Your task to perform on an android device: toggle wifi Image 0: 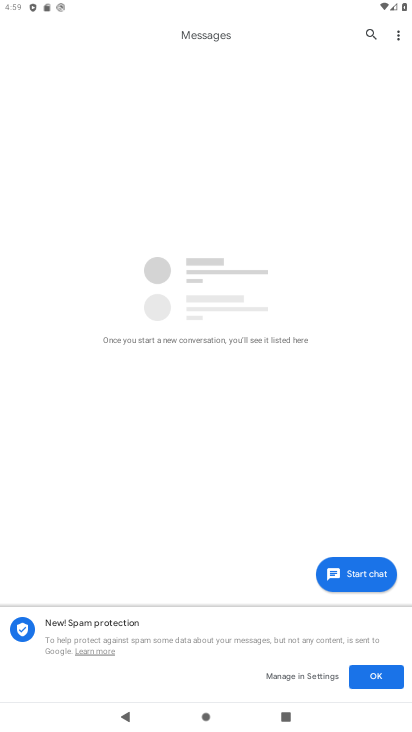
Step 0: press home button
Your task to perform on an android device: toggle wifi Image 1: 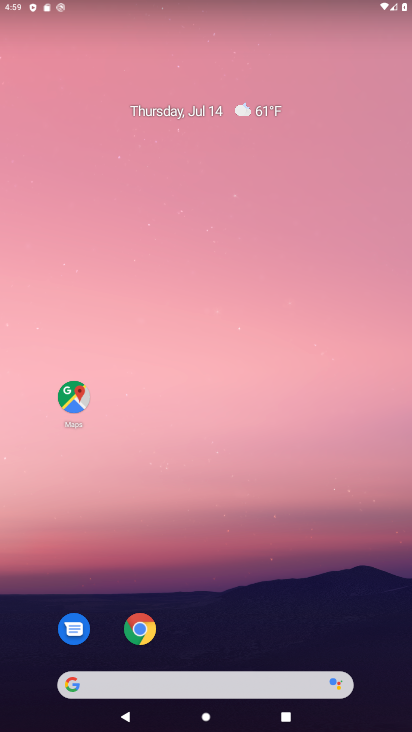
Step 1: drag from (269, 631) to (224, 2)
Your task to perform on an android device: toggle wifi Image 2: 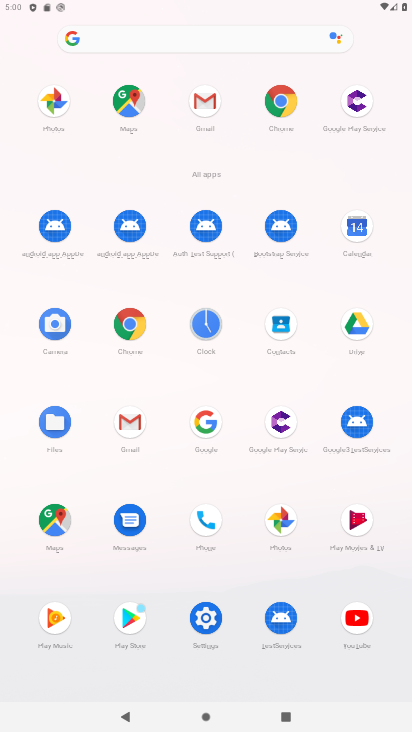
Step 2: drag from (175, 2) to (181, 408)
Your task to perform on an android device: toggle wifi Image 3: 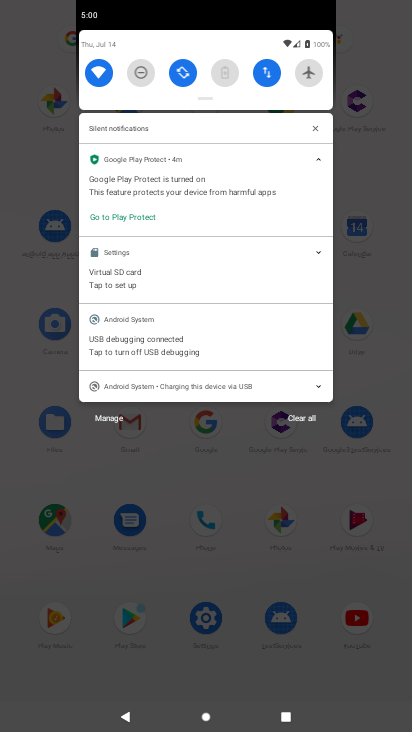
Step 3: click (104, 74)
Your task to perform on an android device: toggle wifi Image 4: 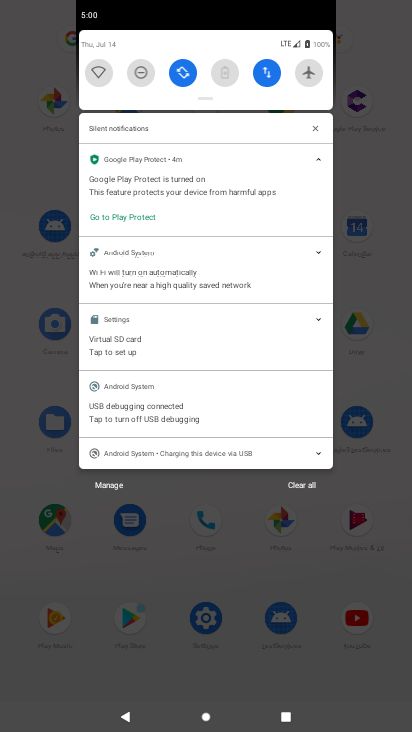
Step 4: task complete